Your task to perform on an android device: move an email to a new category in the gmail app Image 0: 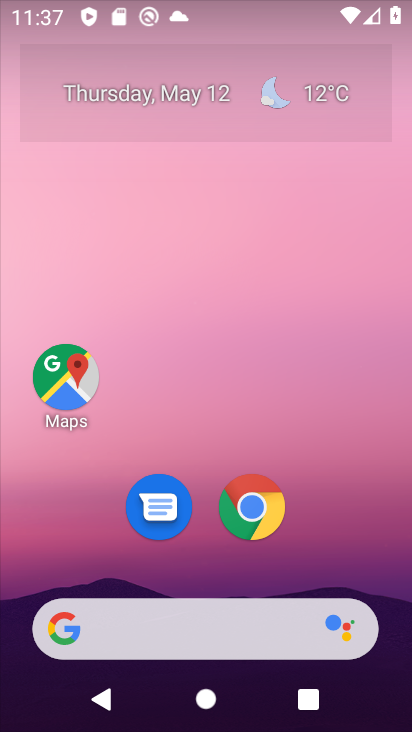
Step 0: drag from (192, 583) to (318, 0)
Your task to perform on an android device: move an email to a new category in the gmail app Image 1: 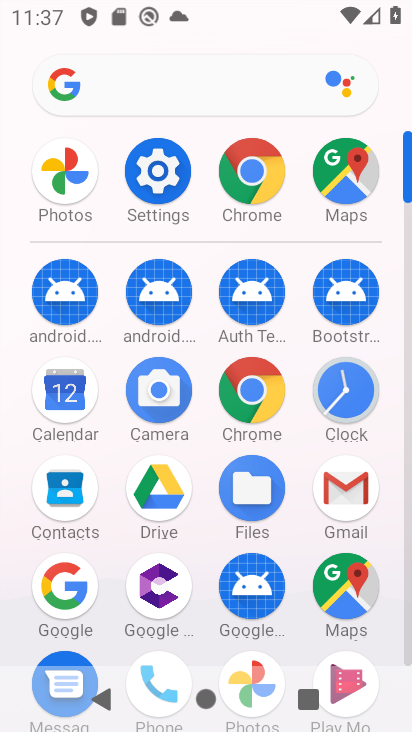
Step 1: click (342, 496)
Your task to perform on an android device: move an email to a new category in the gmail app Image 2: 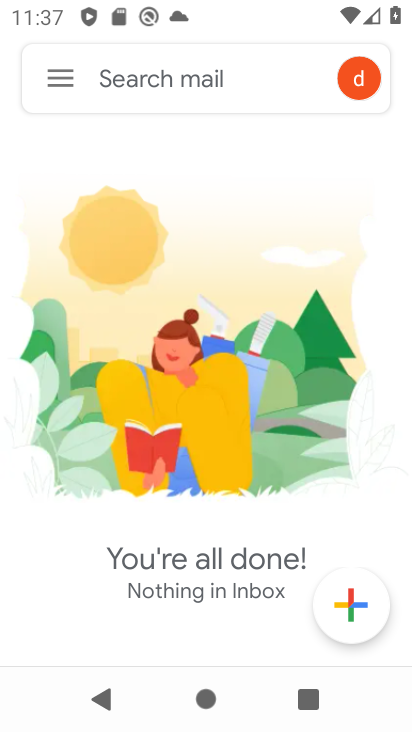
Step 2: click (56, 74)
Your task to perform on an android device: move an email to a new category in the gmail app Image 3: 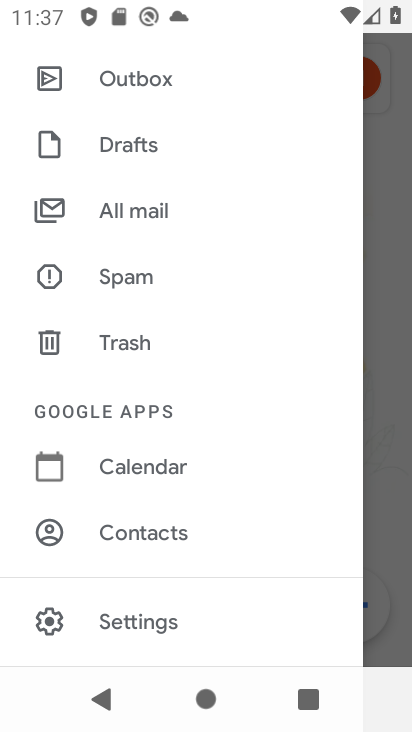
Step 3: click (150, 211)
Your task to perform on an android device: move an email to a new category in the gmail app Image 4: 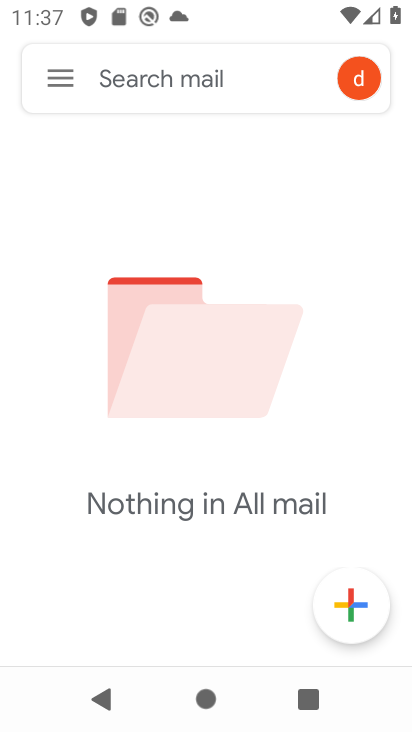
Step 4: task complete